Your task to perform on an android device: change notification settings in the gmail app Image 0: 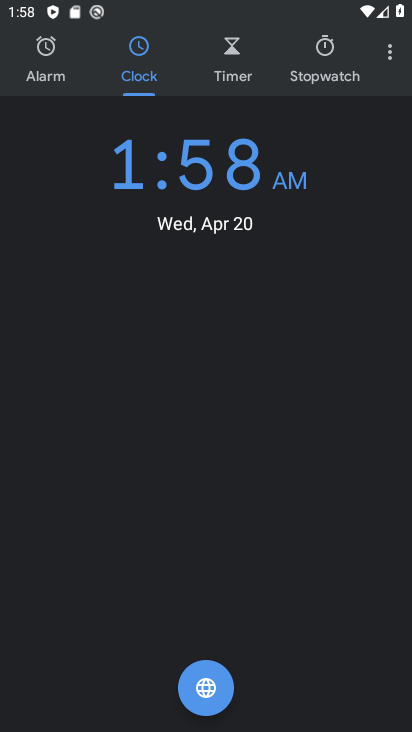
Step 0: press home button
Your task to perform on an android device: change notification settings in the gmail app Image 1: 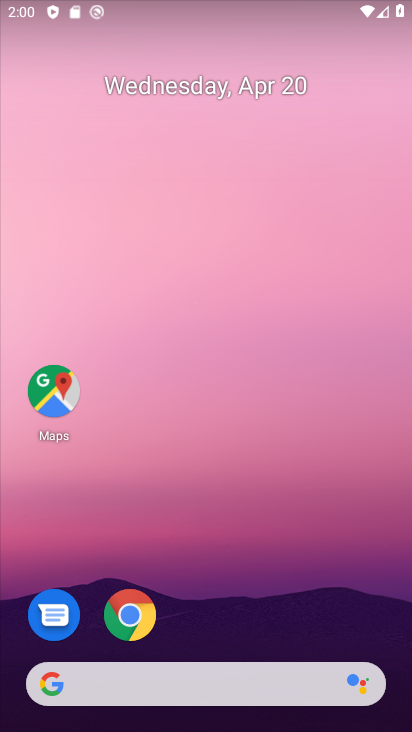
Step 1: drag from (276, 519) to (287, 91)
Your task to perform on an android device: change notification settings in the gmail app Image 2: 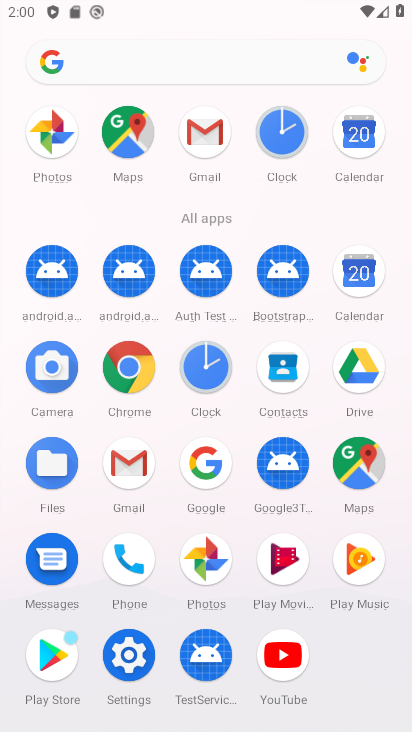
Step 2: click (203, 130)
Your task to perform on an android device: change notification settings in the gmail app Image 3: 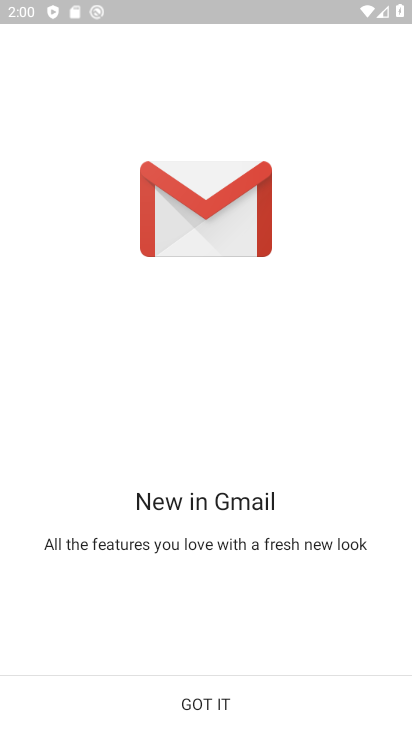
Step 3: click (179, 690)
Your task to perform on an android device: change notification settings in the gmail app Image 4: 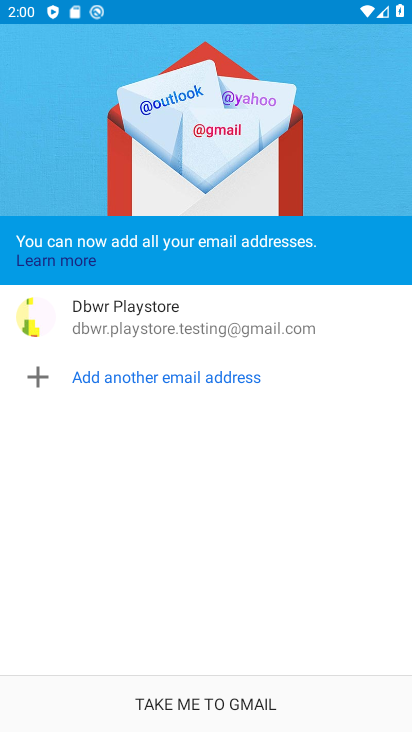
Step 4: click (179, 690)
Your task to perform on an android device: change notification settings in the gmail app Image 5: 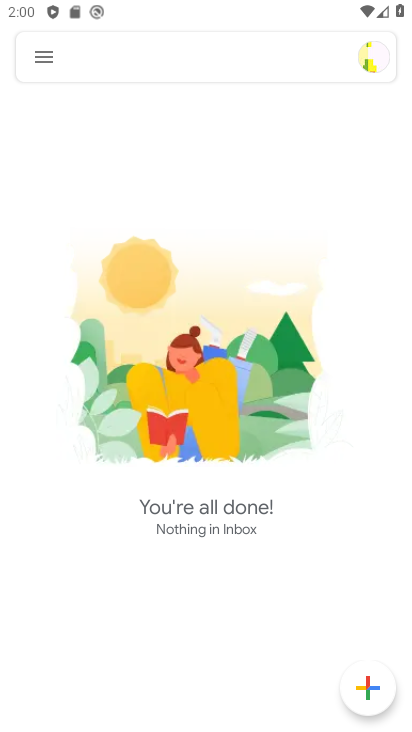
Step 5: press home button
Your task to perform on an android device: change notification settings in the gmail app Image 6: 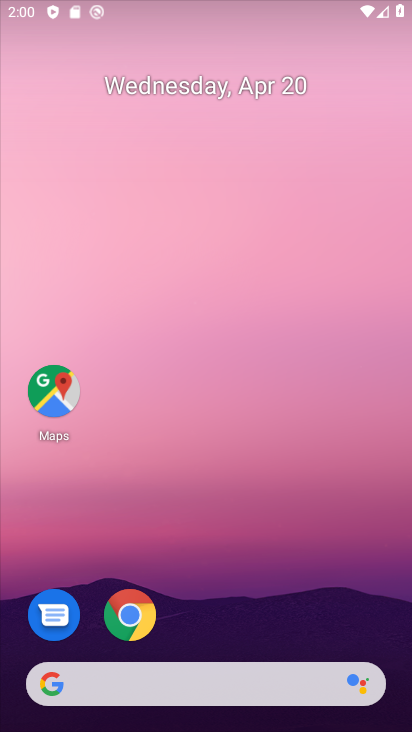
Step 6: drag from (266, 334) to (258, 17)
Your task to perform on an android device: change notification settings in the gmail app Image 7: 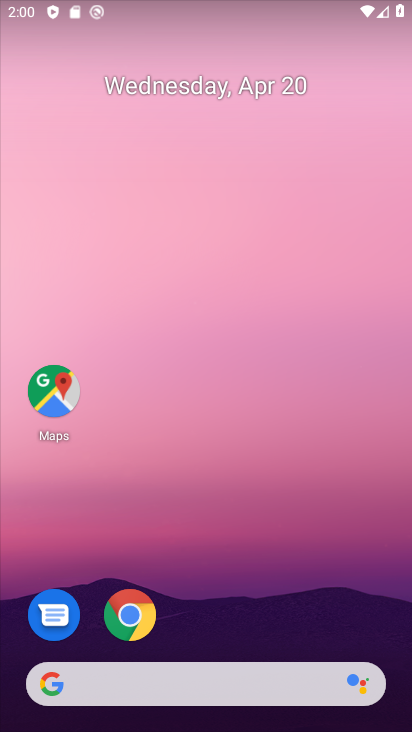
Step 7: drag from (266, 307) to (266, 53)
Your task to perform on an android device: change notification settings in the gmail app Image 8: 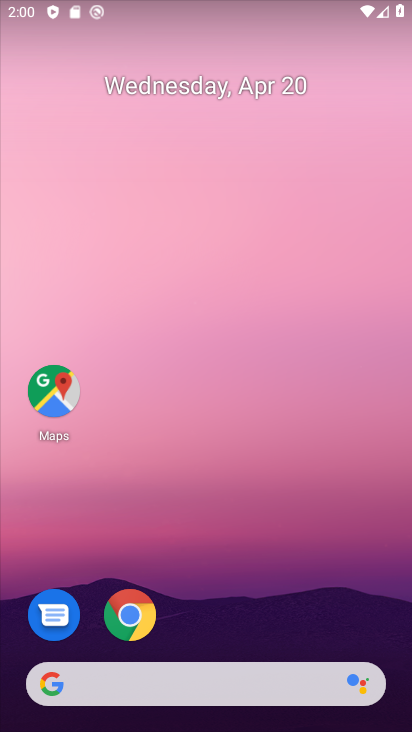
Step 8: drag from (345, 568) to (305, 114)
Your task to perform on an android device: change notification settings in the gmail app Image 9: 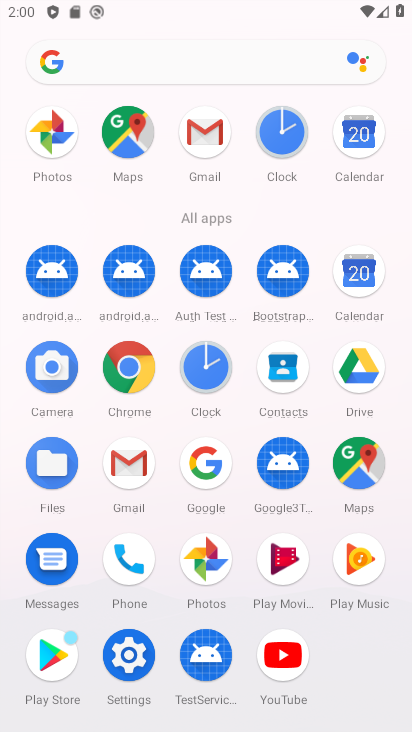
Step 9: click (194, 134)
Your task to perform on an android device: change notification settings in the gmail app Image 10: 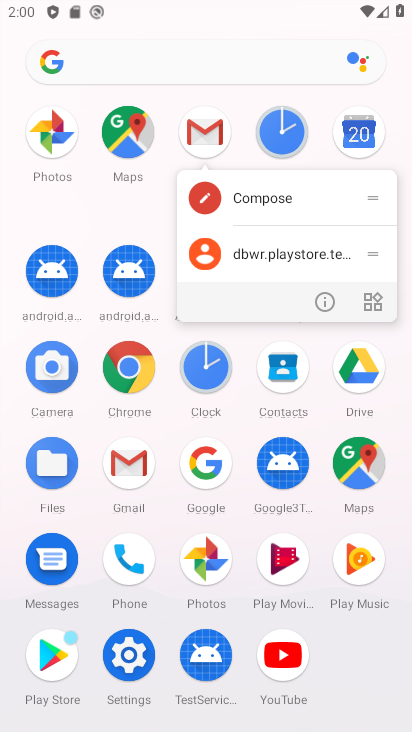
Step 10: click (330, 296)
Your task to perform on an android device: change notification settings in the gmail app Image 11: 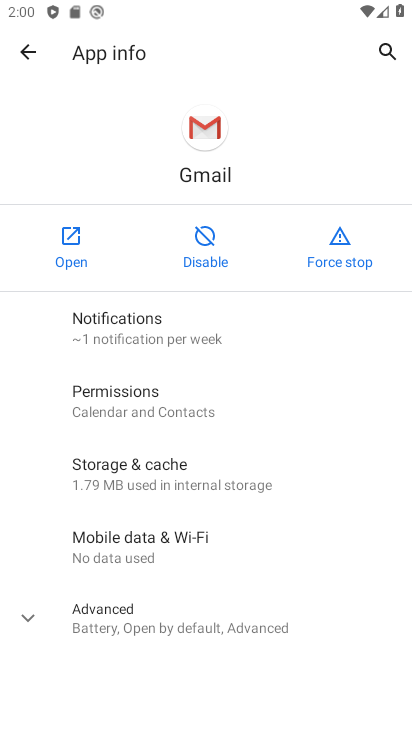
Step 11: click (33, 339)
Your task to perform on an android device: change notification settings in the gmail app Image 12: 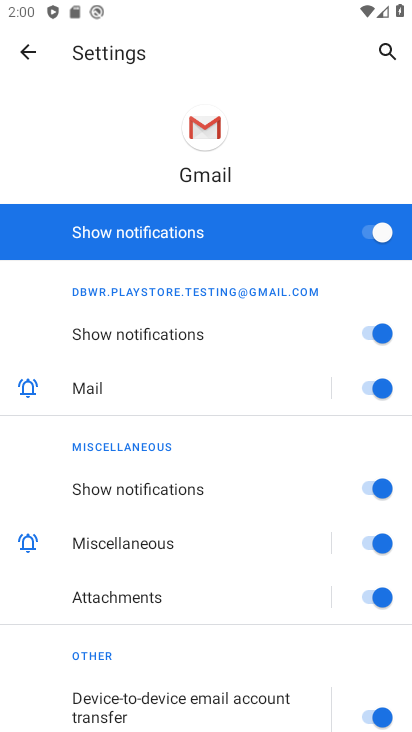
Step 12: click (383, 231)
Your task to perform on an android device: change notification settings in the gmail app Image 13: 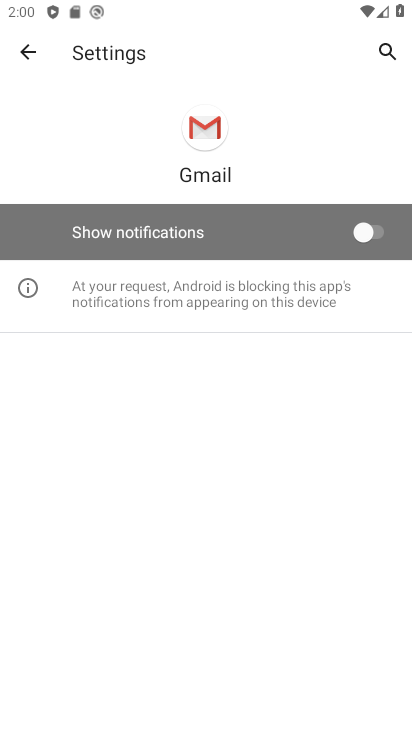
Step 13: task complete